Your task to perform on an android device: Show me recent news Image 0: 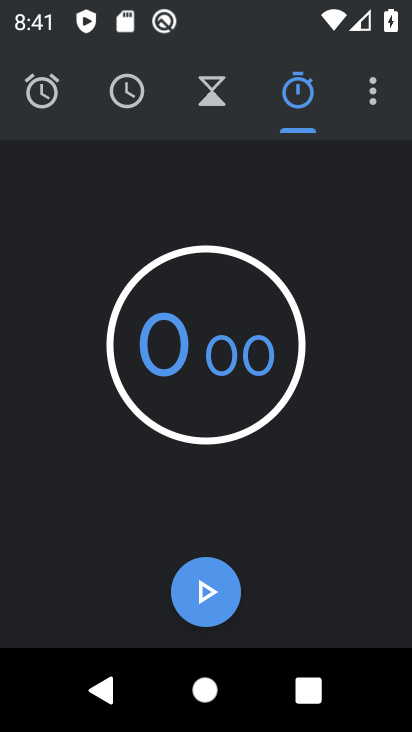
Step 0: press home button
Your task to perform on an android device: Show me recent news Image 1: 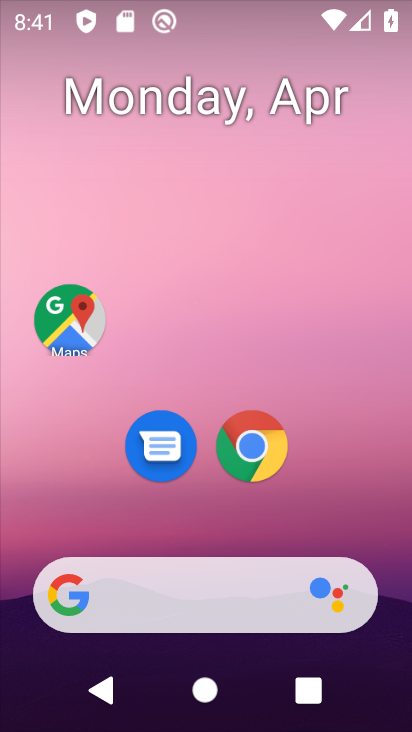
Step 1: drag from (23, 184) to (403, 285)
Your task to perform on an android device: Show me recent news Image 2: 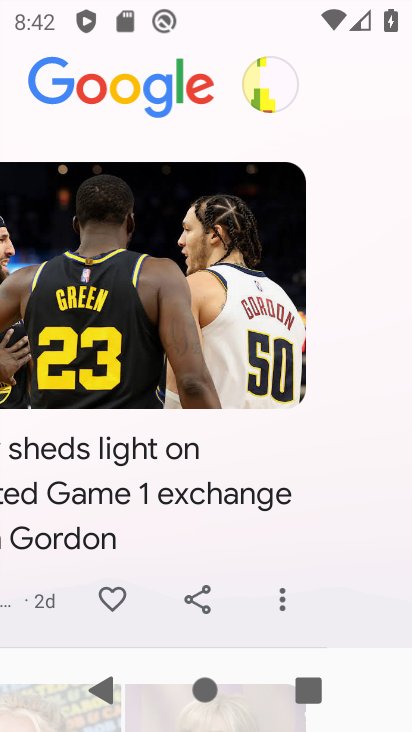
Step 2: click (47, 312)
Your task to perform on an android device: Show me recent news Image 3: 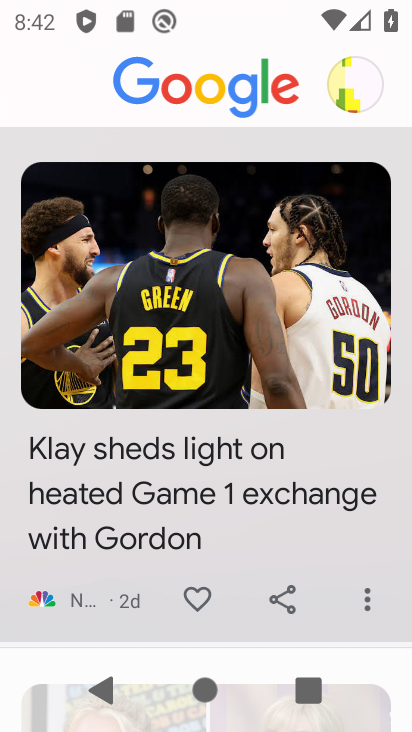
Step 3: task complete